Your task to perform on an android device: open the mobile data screen to see how much data has been used Image 0: 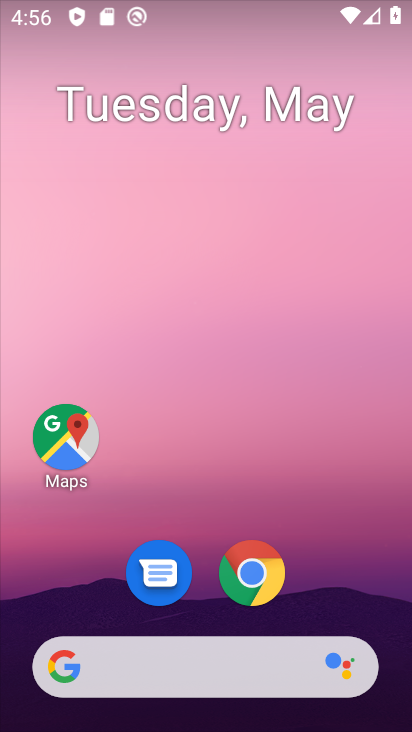
Step 0: drag from (206, 583) to (200, 101)
Your task to perform on an android device: open the mobile data screen to see how much data has been used Image 1: 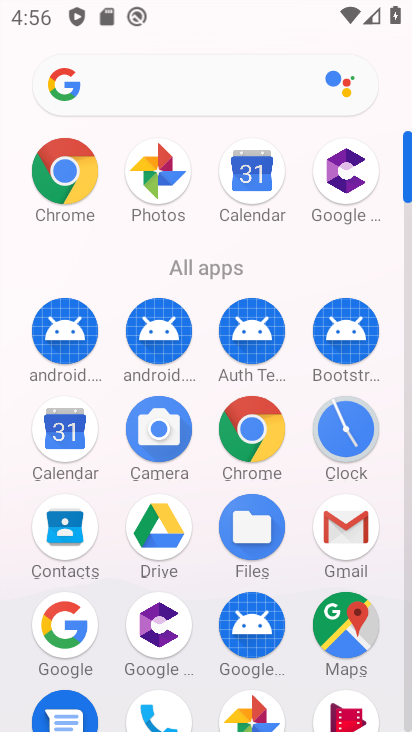
Step 1: drag from (174, 636) to (260, 98)
Your task to perform on an android device: open the mobile data screen to see how much data has been used Image 2: 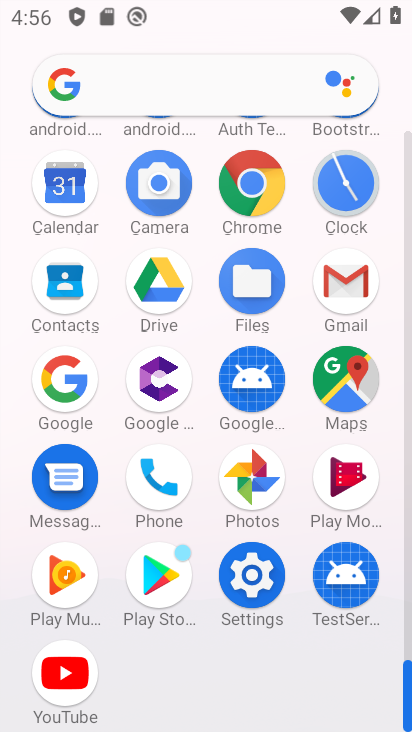
Step 2: click (247, 579)
Your task to perform on an android device: open the mobile data screen to see how much data has been used Image 3: 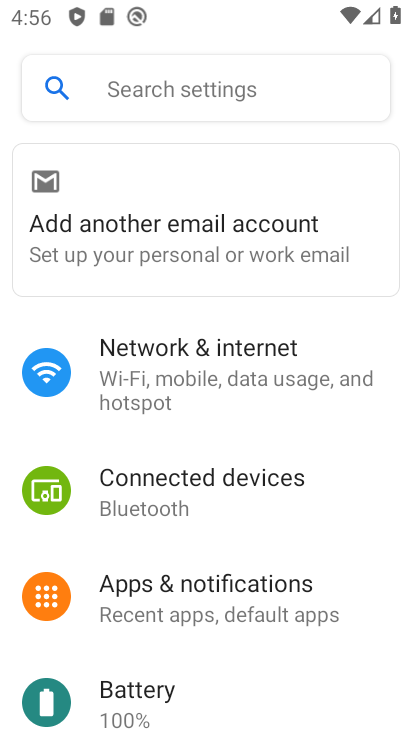
Step 3: click (188, 372)
Your task to perform on an android device: open the mobile data screen to see how much data has been used Image 4: 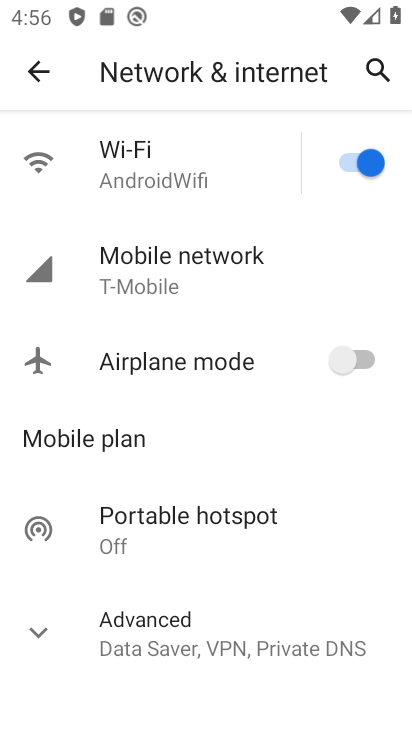
Step 4: click (167, 293)
Your task to perform on an android device: open the mobile data screen to see how much data has been used Image 5: 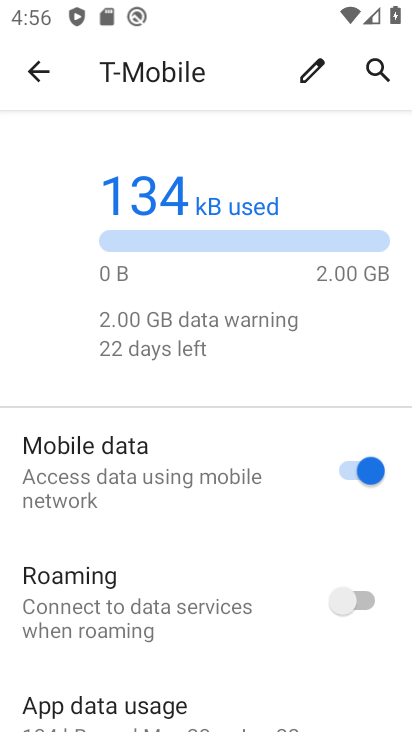
Step 5: drag from (171, 647) to (212, 277)
Your task to perform on an android device: open the mobile data screen to see how much data has been used Image 6: 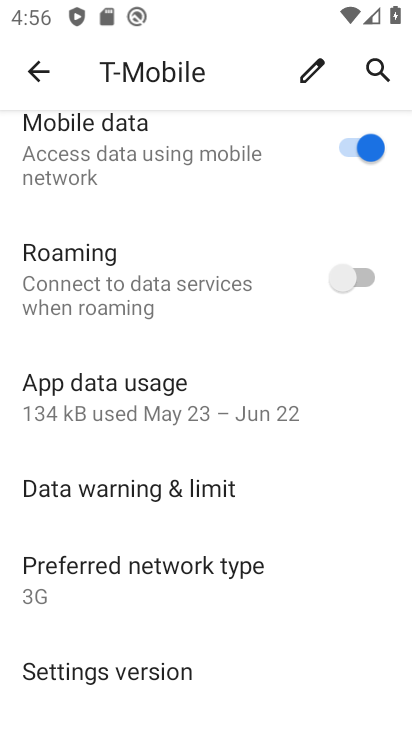
Step 6: click (111, 391)
Your task to perform on an android device: open the mobile data screen to see how much data has been used Image 7: 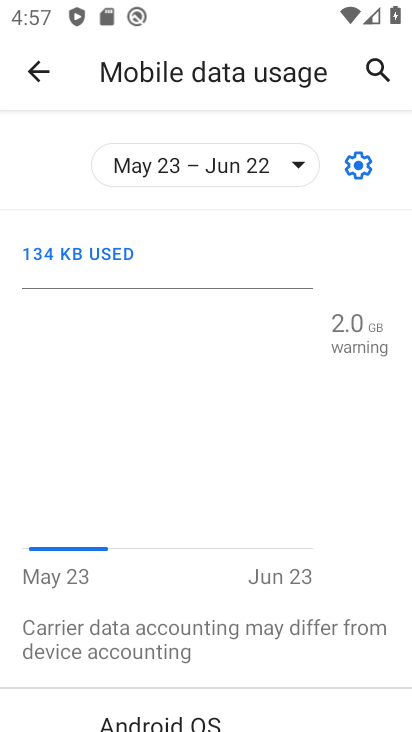
Step 7: task complete